Your task to perform on an android device: Go to Google Image 0: 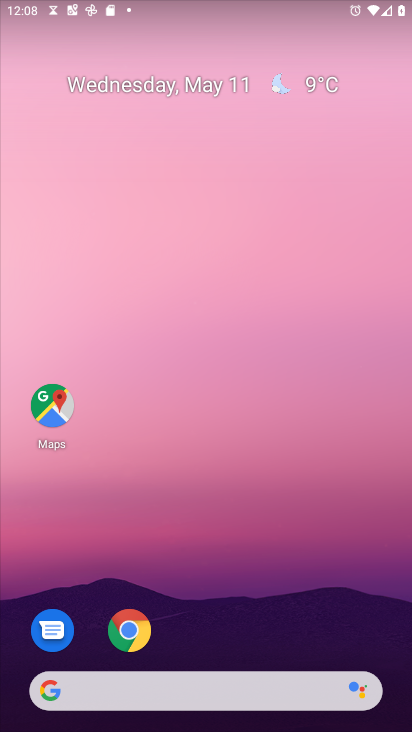
Step 0: drag from (245, 594) to (233, 257)
Your task to perform on an android device: Go to Google Image 1: 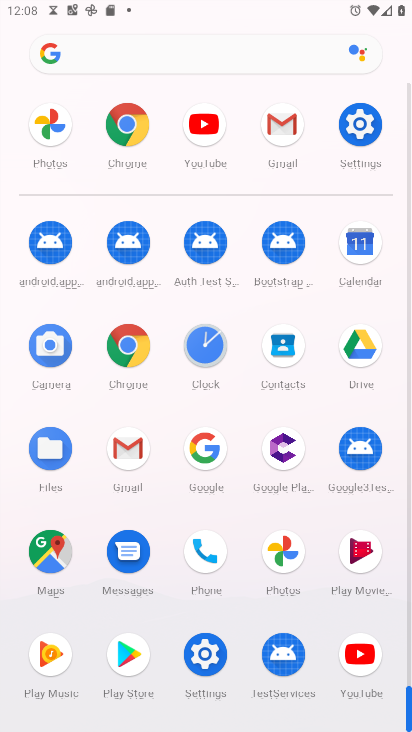
Step 1: click (205, 457)
Your task to perform on an android device: Go to Google Image 2: 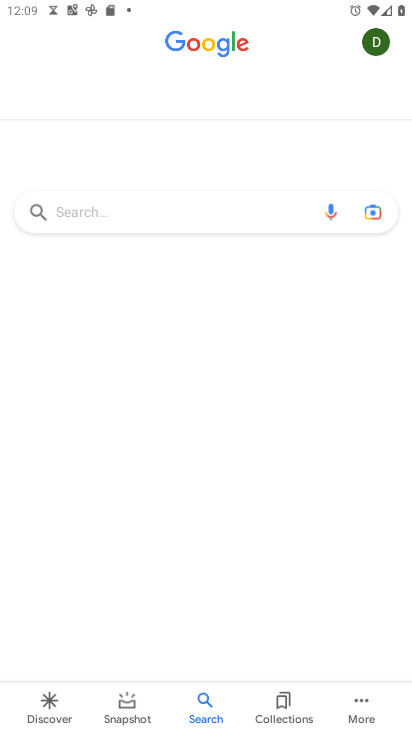
Step 2: task complete